Your task to perform on an android device: Open privacy settings Image 0: 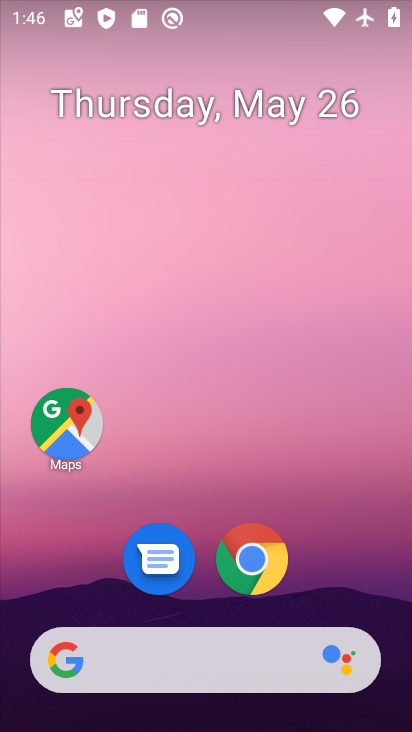
Step 0: press home button
Your task to perform on an android device: Open privacy settings Image 1: 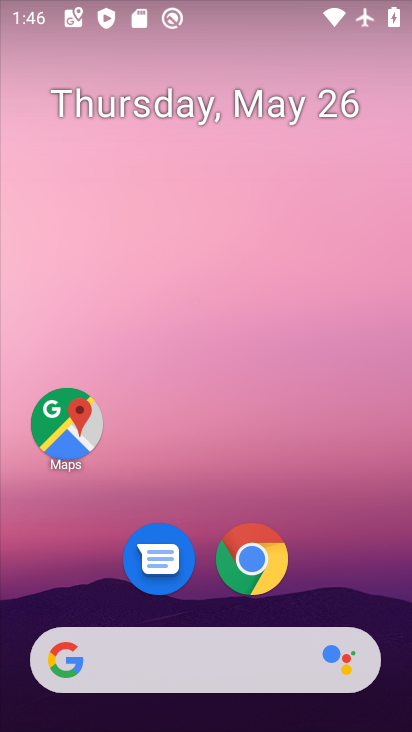
Step 1: drag from (231, 650) to (362, 106)
Your task to perform on an android device: Open privacy settings Image 2: 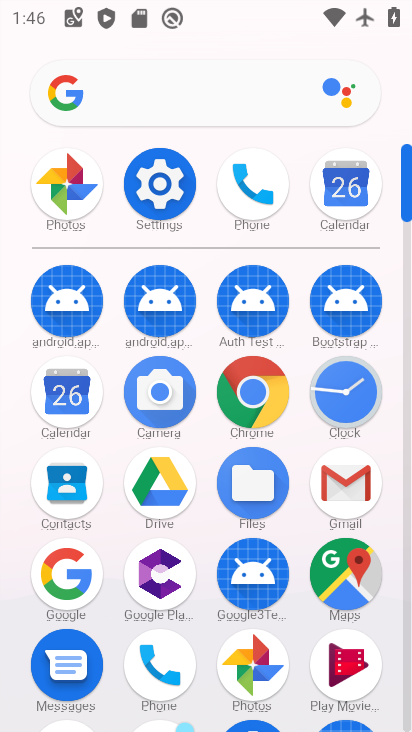
Step 2: click (159, 186)
Your task to perform on an android device: Open privacy settings Image 3: 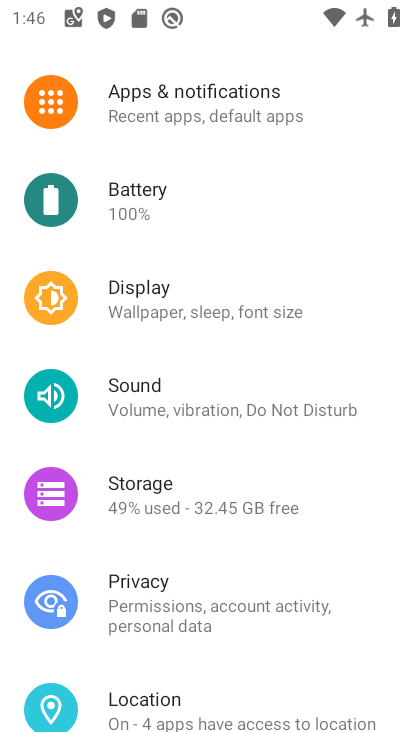
Step 3: click (172, 596)
Your task to perform on an android device: Open privacy settings Image 4: 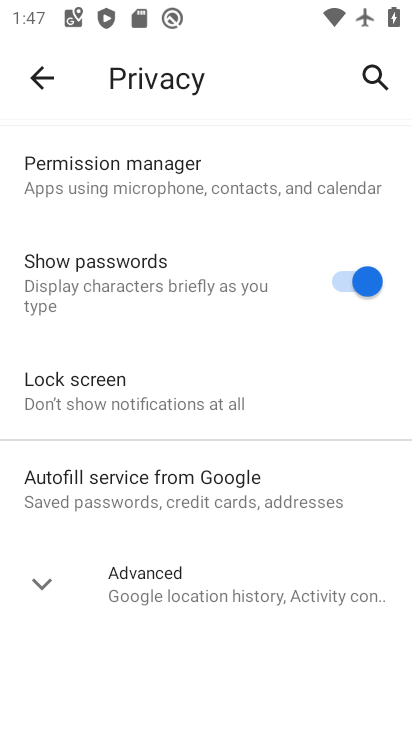
Step 4: task complete